Your task to perform on an android device: allow cookies in the chrome app Image 0: 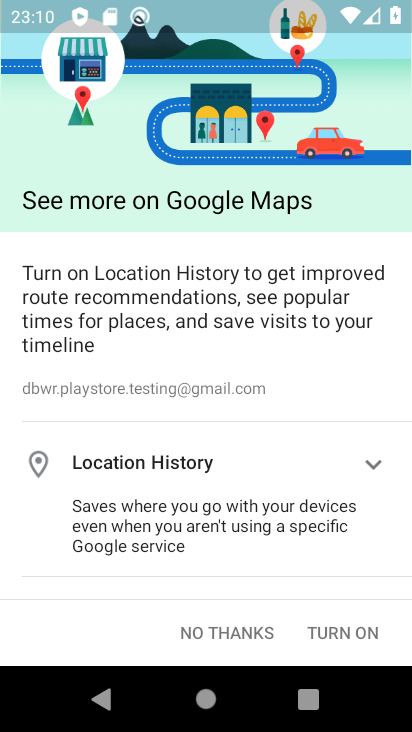
Step 0: press home button
Your task to perform on an android device: allow cookies in the chrome app Image 1: 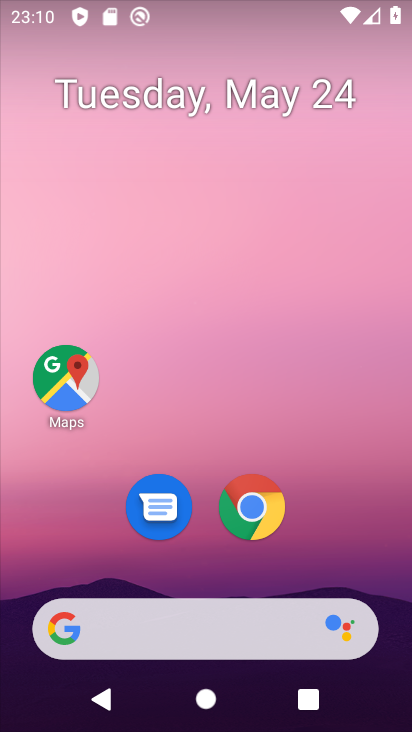
Step 1: drag from (294, 667) to (349, 17)
Your task to perform on an android device: allow cookies in the chrome app Image 2: 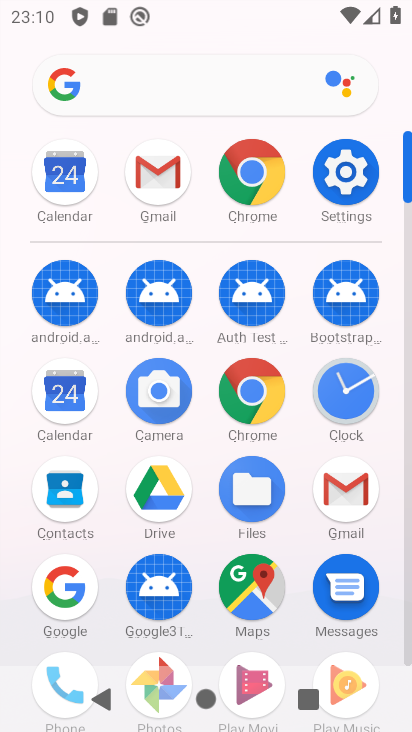
Step 2: click (232, 380)
Your task to perform on an android device: allow cookies in the chrome app Image 3: 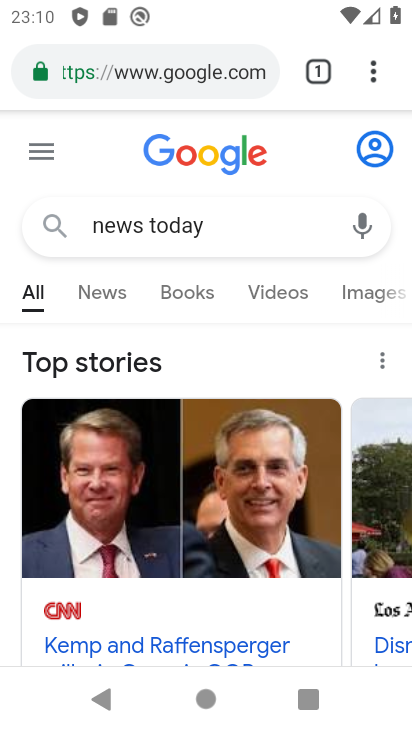
Step 3: drag from (373, 81) to (322, 506)
Your task to perform on an android device: allow cookies in the chrome app Image 4: 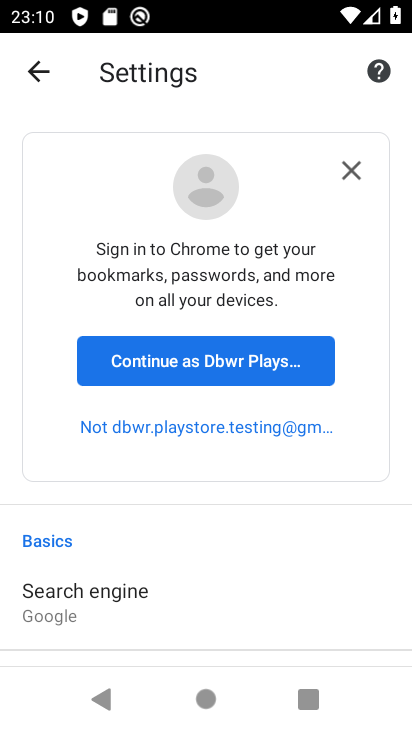
Step 4: drag from (174, 600) to (84, 69)
Your task to perform on an android device: allow cookies in the chrome app Image 5: 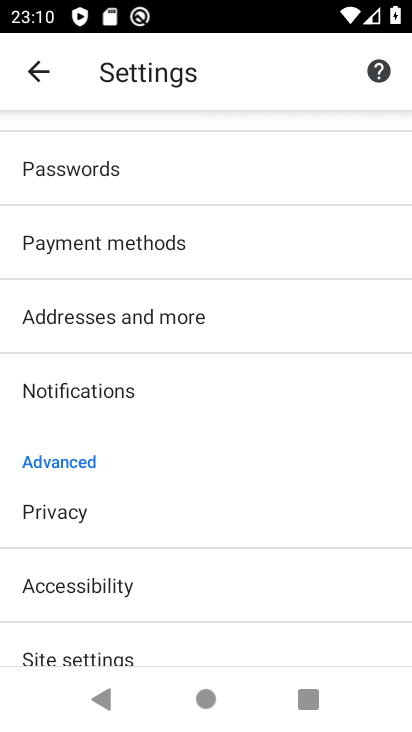
Step 5: drag from (152, 614) to (154, 331)
Your task to perform on an android device: allow cookies in the chrome app Image 6: 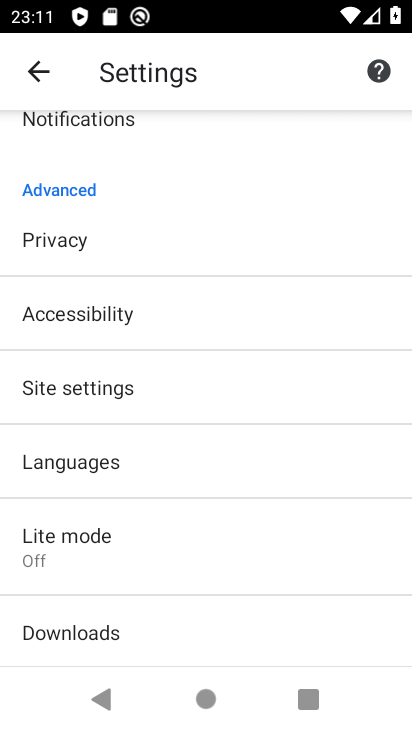
Step 6: click (140, 375)
Your task to perform on an android device: allow cookies in the chrome app Image 7: 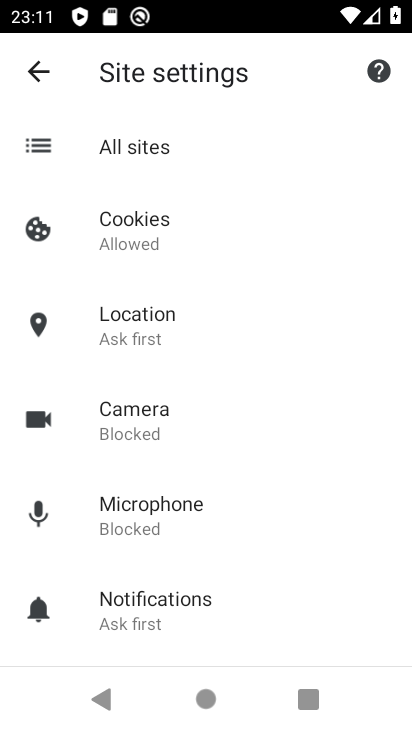
Step 7: task complete